Your task to perform on an android device: toggle javascript in the chrome app Image 0: 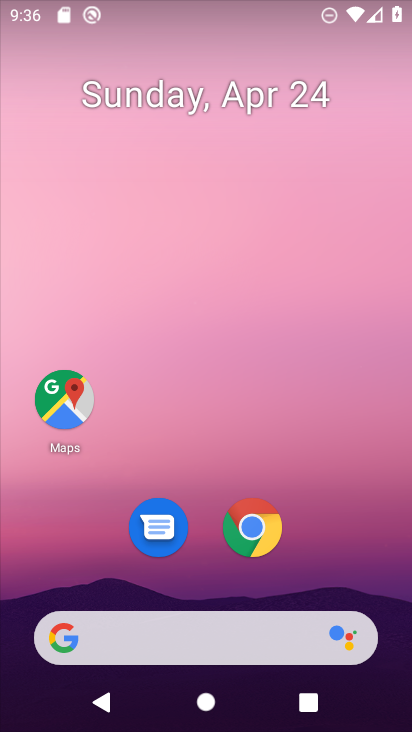
Step 0: drag from (384, 622) to (207, 58)
Your task to perform on an android device: toggle javascript in the chrome app Image 1: 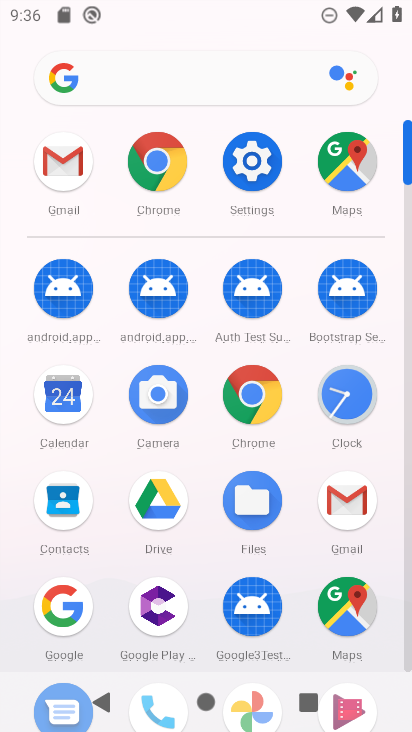
Step 1: click (266, 392)
Your task to perform on an android device: toggle javascript in the chrome app Image 2: 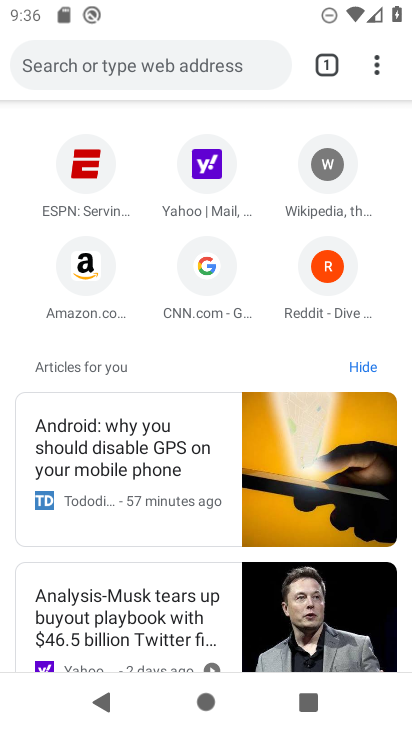
Step 2: click (374, 62)
Your task to perform on an android device: toggle javascript in the chrome app Image 3: 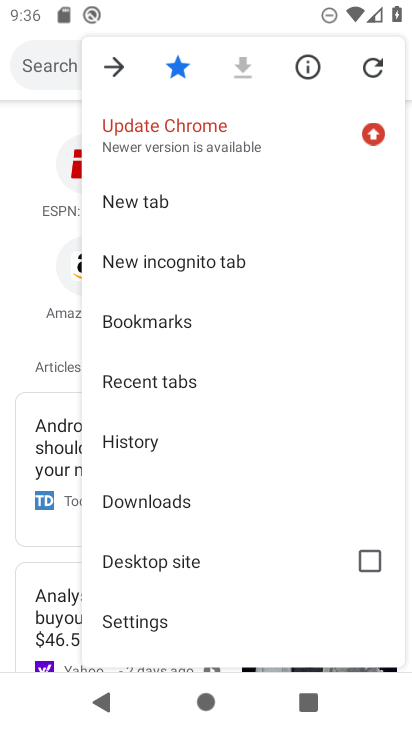
Step 3: click (229, 627)
Your task to perform on an android device: toggle javascript in the chrome app Image 4: 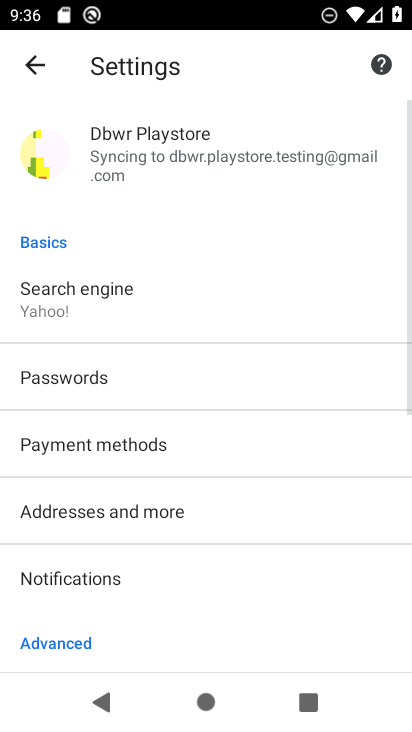
Step 4: drag from (228, 625) to (293, 154)
Your task to perform on an android device: toggle javascript in the chrome app Image 5: 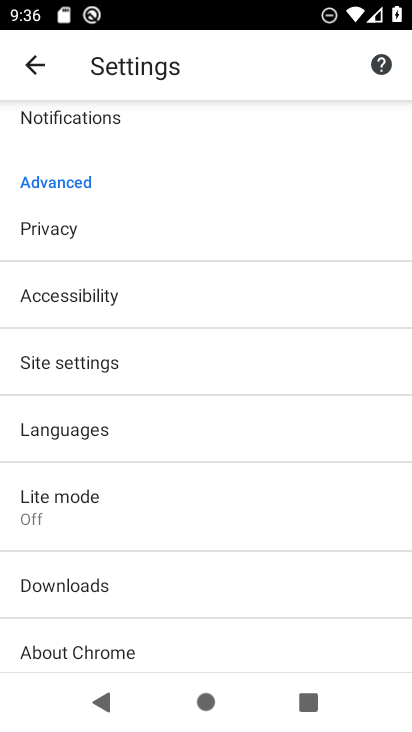
Step 5: click (144, 358)
Your task to perform on an android device: toggle javascript in the chrome app Image 6: 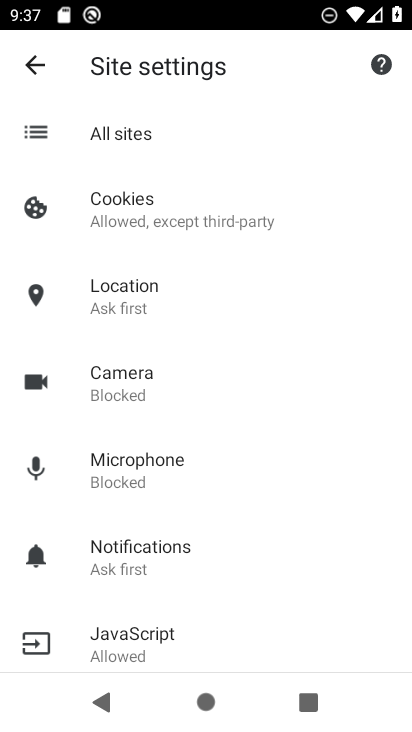
Step 6: click (148, 632)
Your task to perform on an android device: toggle javascript in the chrome app Image 7: 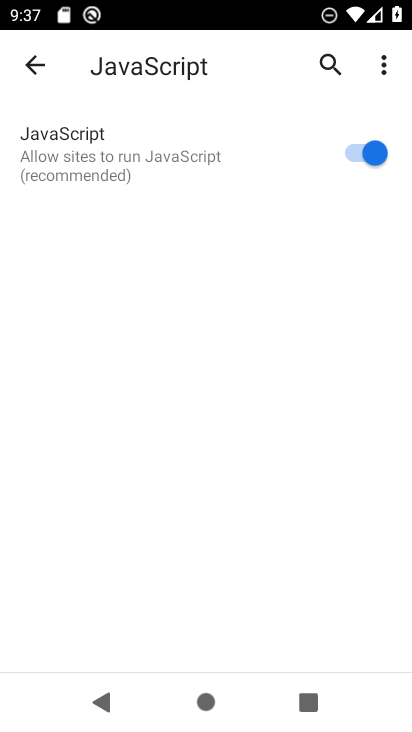
Step 7: click (259, 169)
Your task to perform on an android device: toggle javascript in the chrome app Image 8: 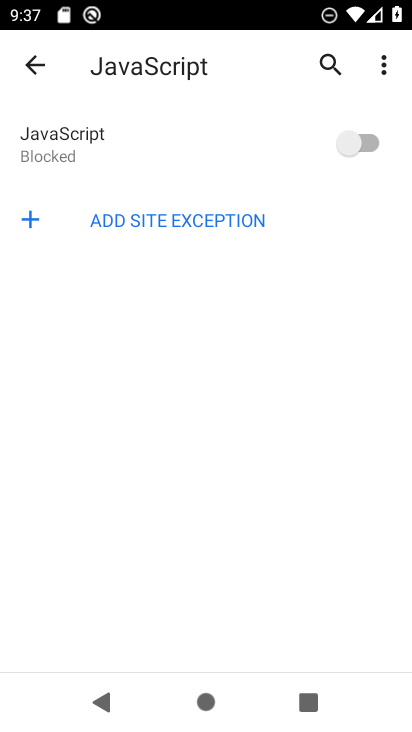
Step 8: task complete